Your task to perform on an android device: Go to internet settings Image 0: 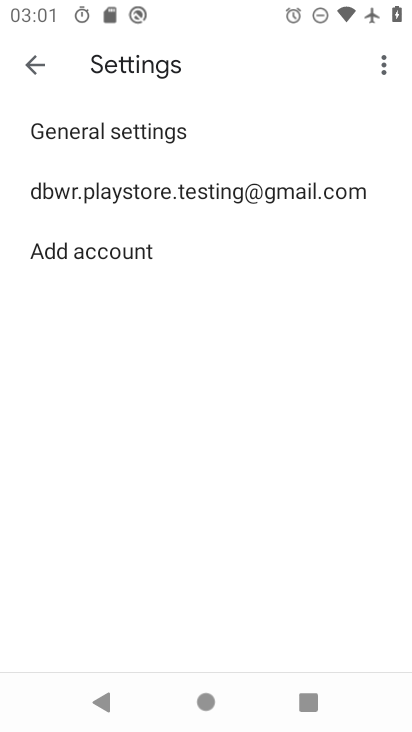
Step 0: press home button
Your task to perform on an android device: Go to internet settings Image 1: 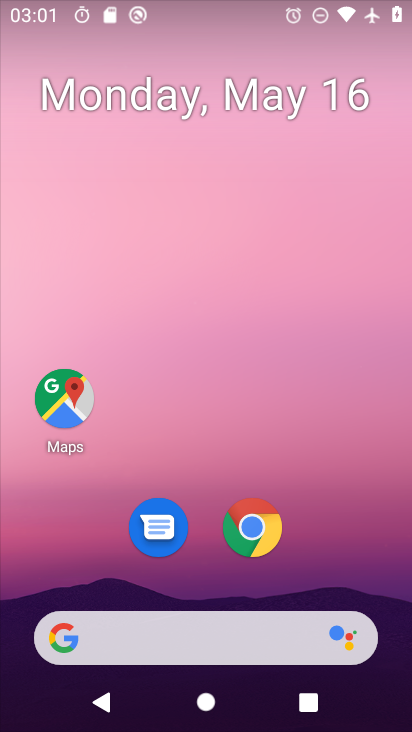
Step 1: drag from (166, 639) to (332, 192)
Your task to perform on an android device: Go to internet settings Image 2: 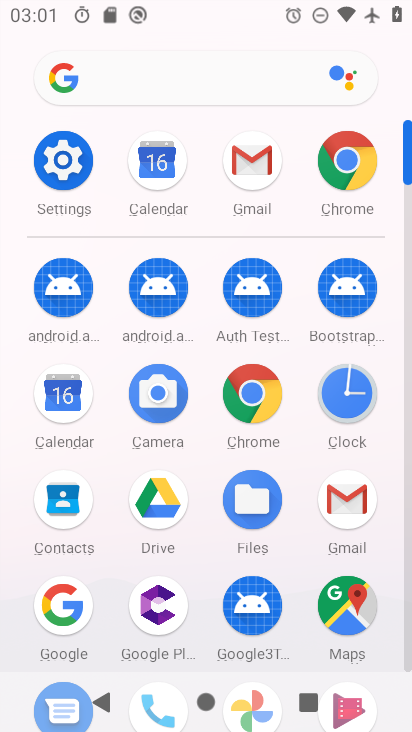
Step 2: click (56, 169)
Your task to perform on an android device: Go to internet settings Image 3: 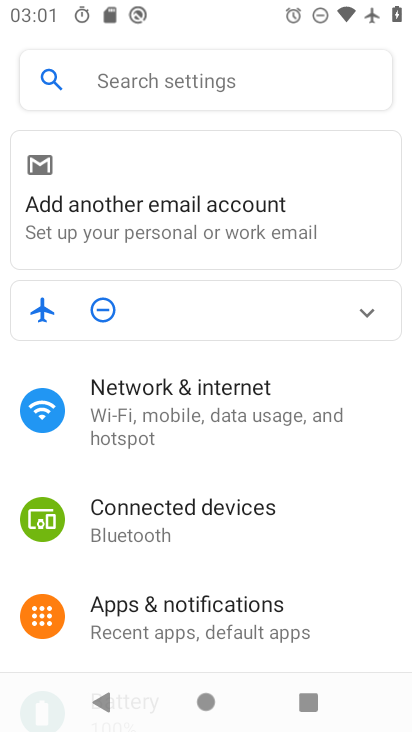
Step 3: click (188, 394)
Your task to perform on an android device: Go to internet settings Image 4: 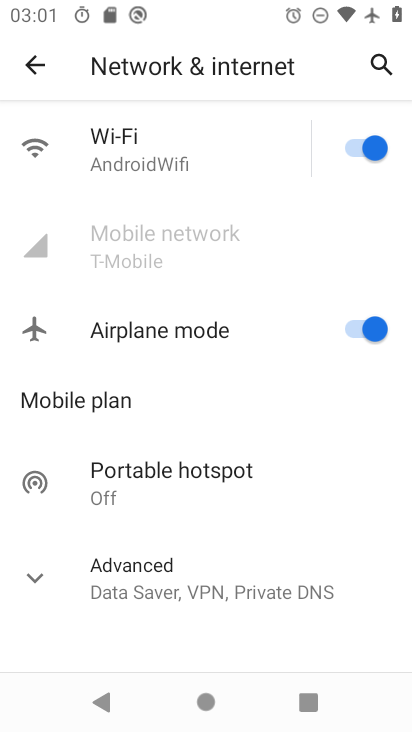
Step 4: task complete